Your task to perform on an android device: Go to ESPN.com Image 0: 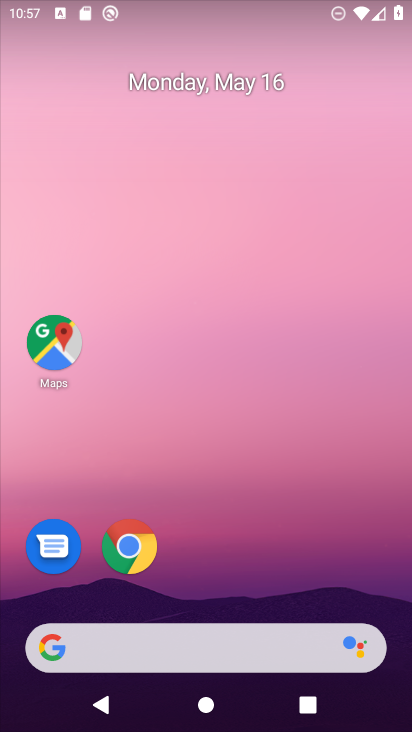
Step 0: click (206, 638)
Your task to perform on an android device: Go to ESPN.com Image 1: 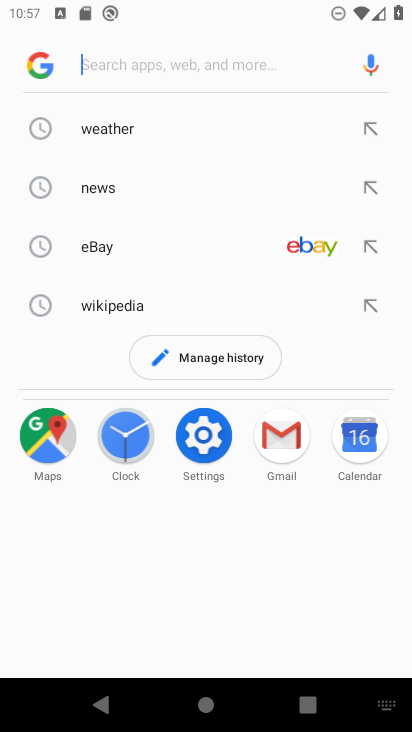
Step 1: type "espn"
Your task to perform on an android device: Go to ESPN.com Image 2: 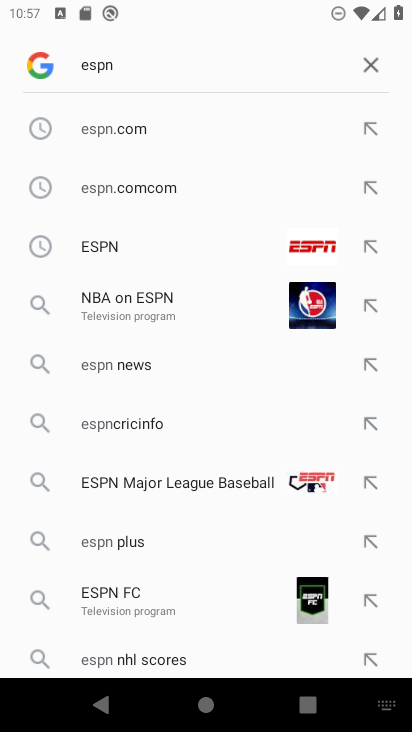
Step 2: click (191, 136)
Your task to perform on an android device: Go to ESPN.com Image 3: 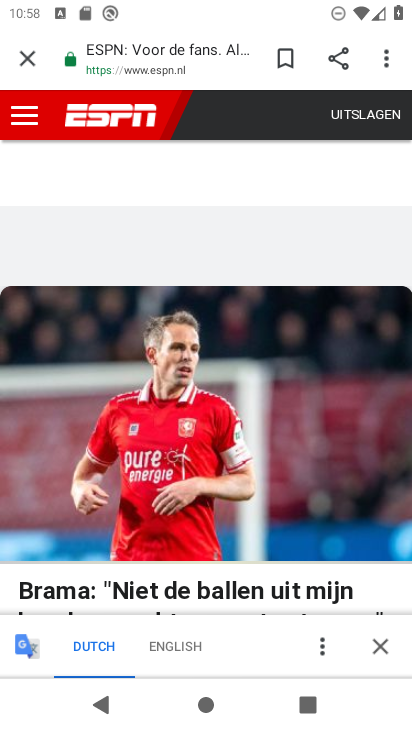
Step 3: task complete